Your task to perform on an android device: toggle notification dots Image 0: 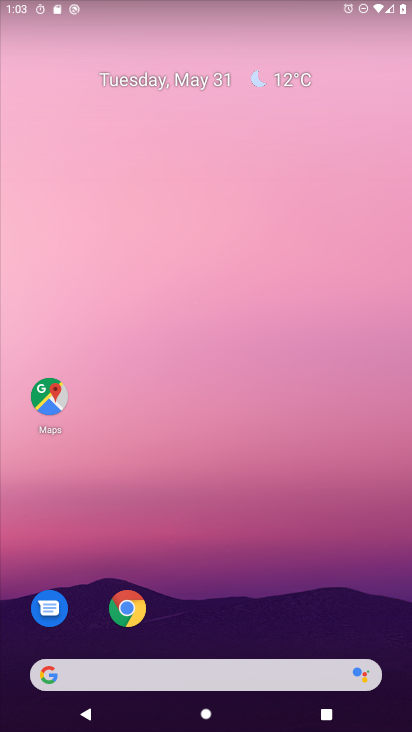
Step 0: drag from (266, 649) to (292, 0)
Your task to perform on an android device: toggle notification dots Image 1: 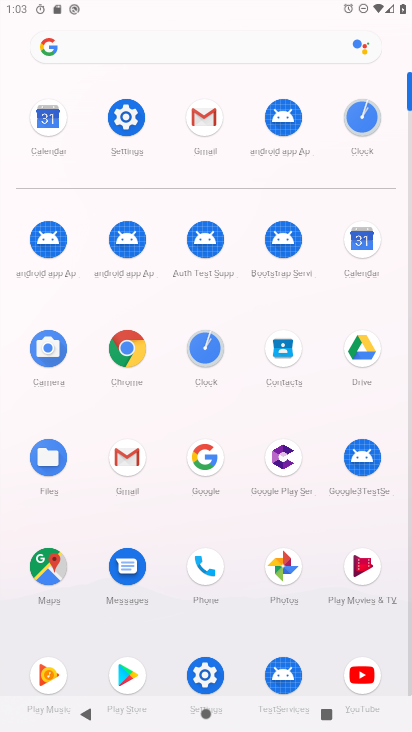
Step 1: click (129, 125)
Your task to perform on an android device: toggle notification dots Image 2: 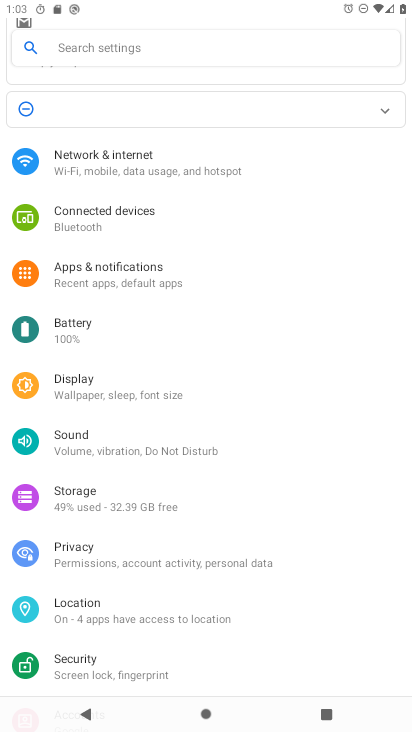
Step 2: click (112, 265)
Your task to perform on an android device: toggle notification dots Image 3: 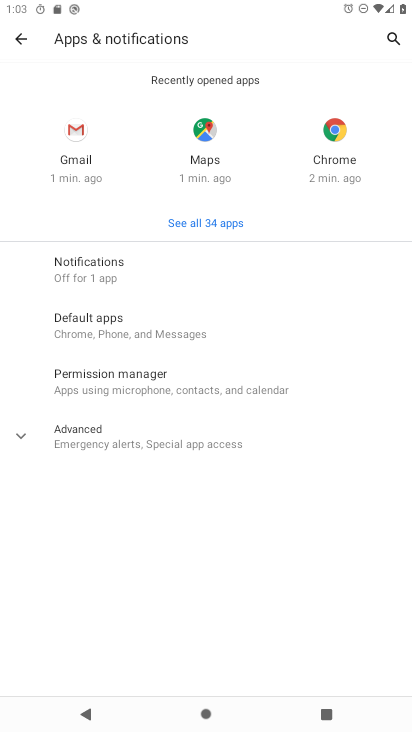
Step 3: click (70, 265)
Your task to perform on an android device: toggle notification dots Image 4: 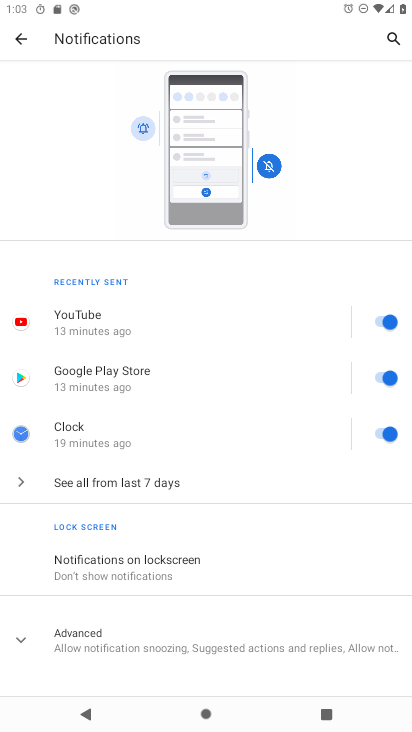
Step 4: click (20, 643)
Your task to perform on an android device: toggle notification dots Image 5: 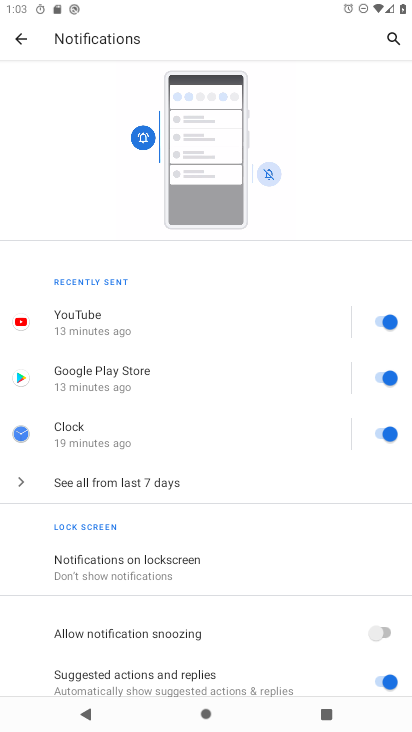
Step 5: drag from (194, 598) to (206, 205)
Your task to perform on an android device: toggle notification dots Image 6: 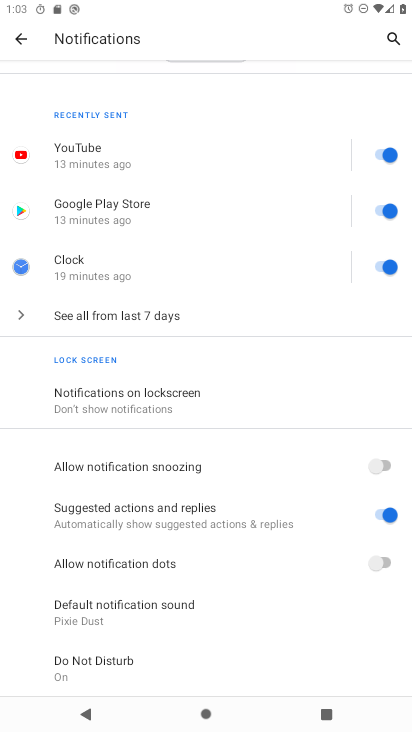
Step 6: click (367, 566)
Your task to perform on an android device: toggle notification dots Image 7: 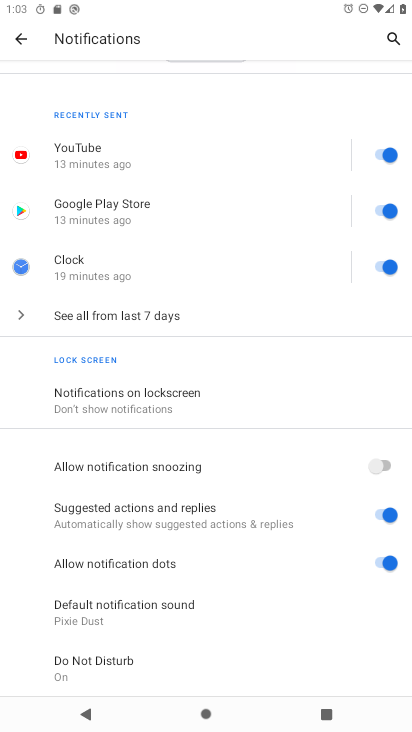
Step 7: task complete